Your task to perform on an android device: install app "The Home Depot" Image 0: 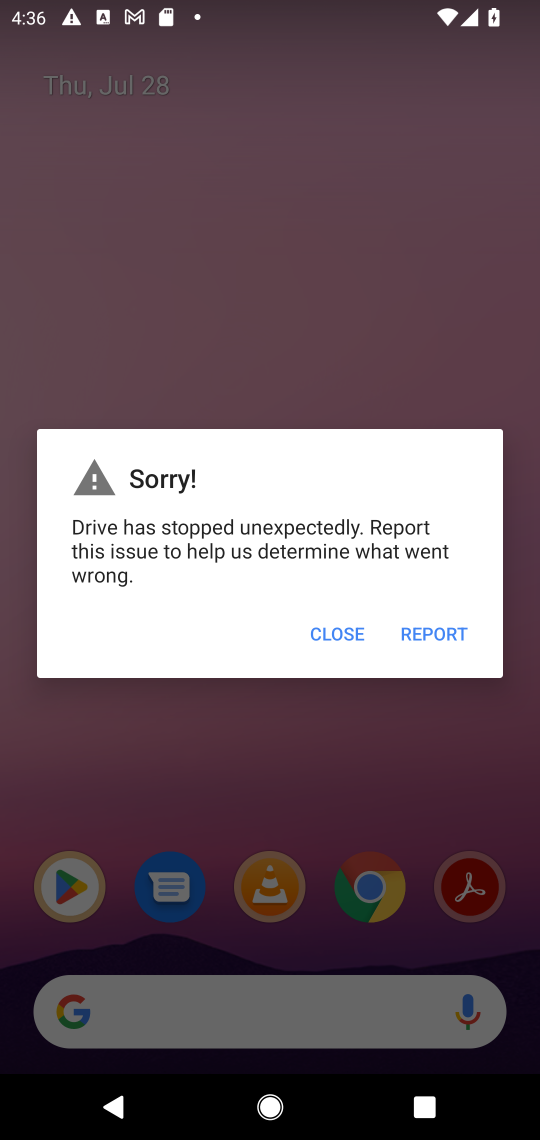
Step 0: click (337, 635)
Your task to perform on an android device: install app "The Home Depot" Image 1: 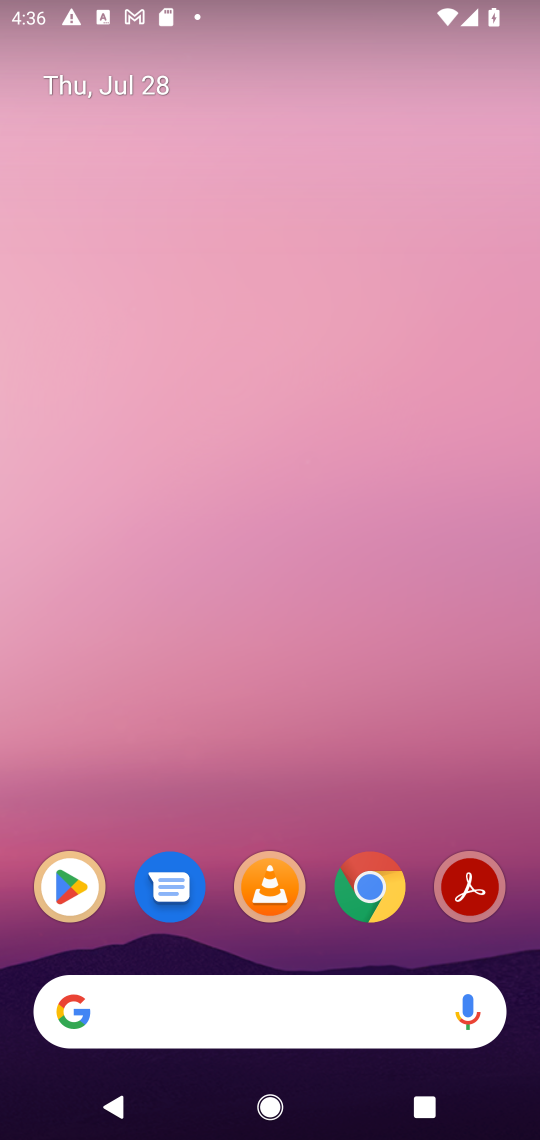
Step 1: click (62, 898)
Your task to perform on an android device: install app "The Home Depot" Image 2: 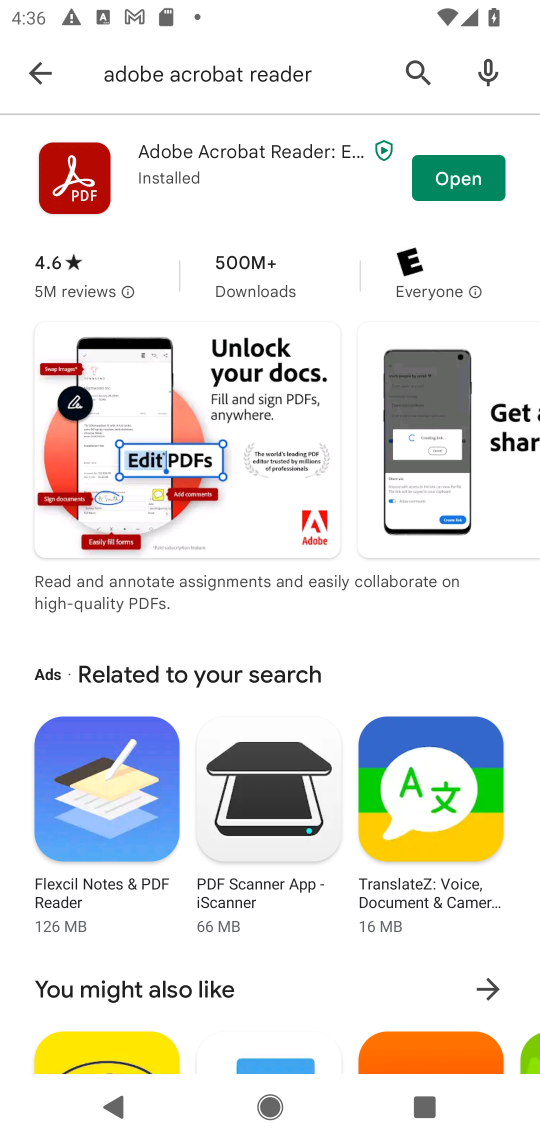
Step 2: click (293, 91)
Your task to perform on an android device: install app "The Home Depot" Image 3: 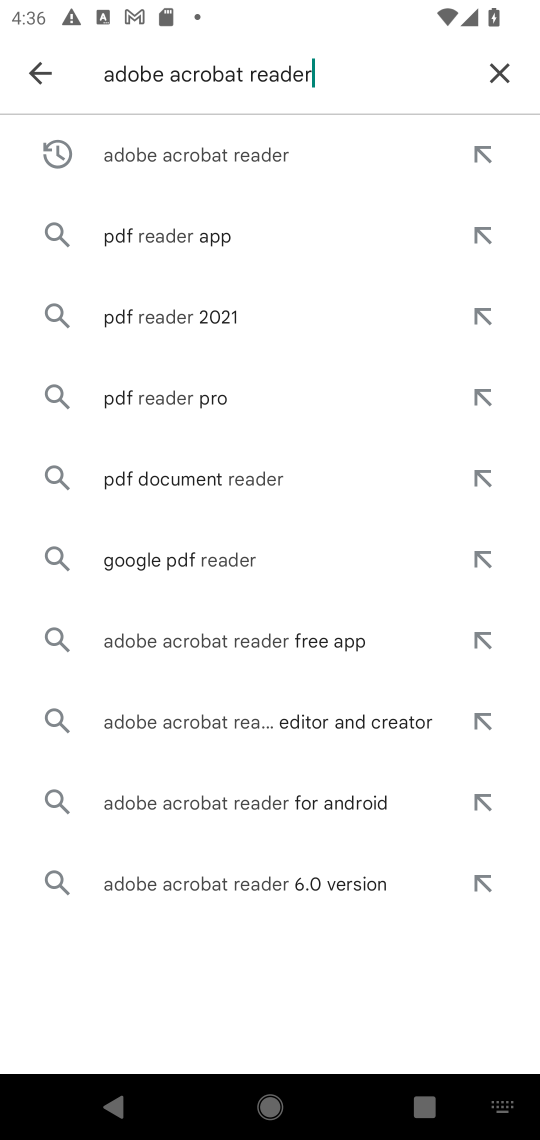
Step 3: click (498, 72)
Your task to perform on an android device: install app "The Home Depot" Image 4: 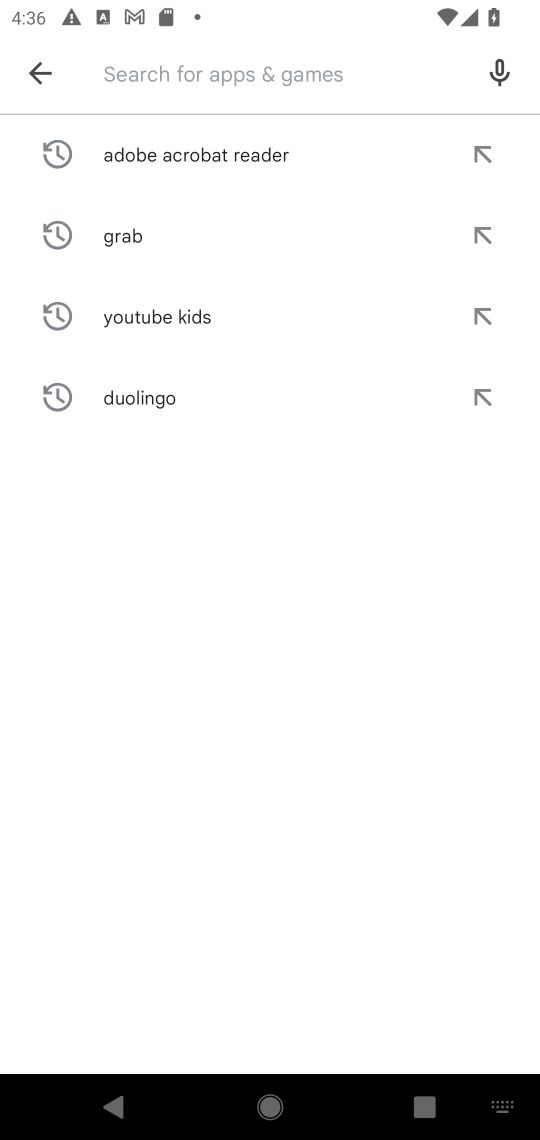
Step 4: type "The Hoem Depot"
Your task to perform on an android device: install app "The Home Depot" Image 5: 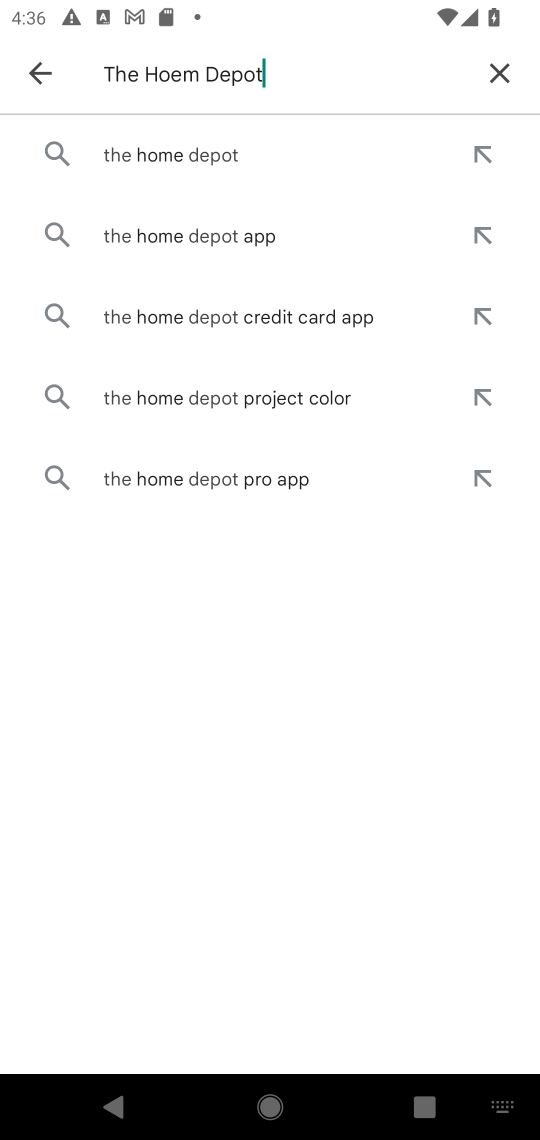
Step 5: click (224, 167)
Your task to perform on an android device: install app "The Home Depot" Image 6: 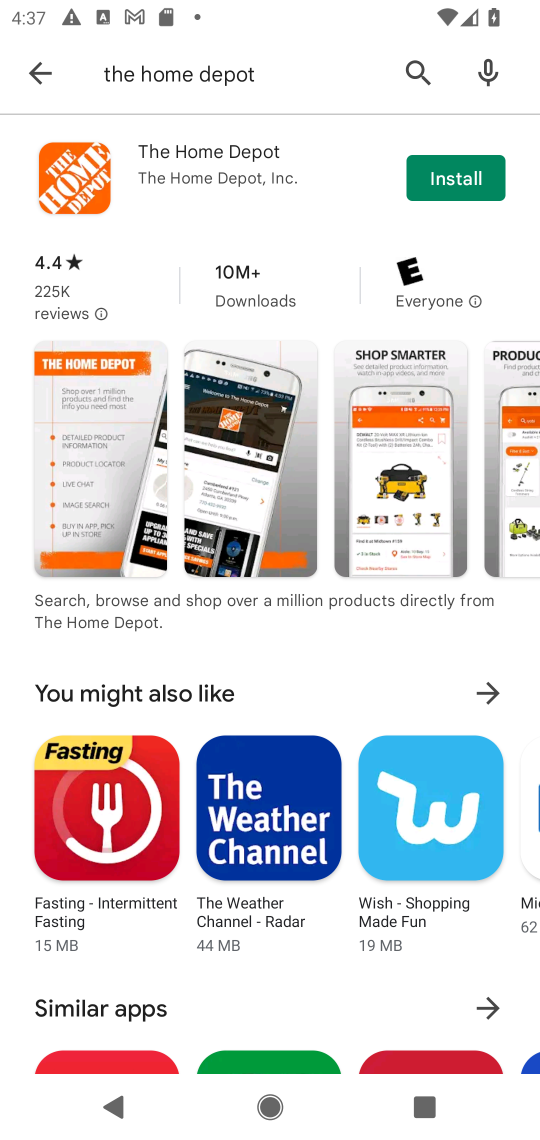
Step 6: click (461, 186)
Your task to perform on an android device: install app "The Home Depot" Image 7: 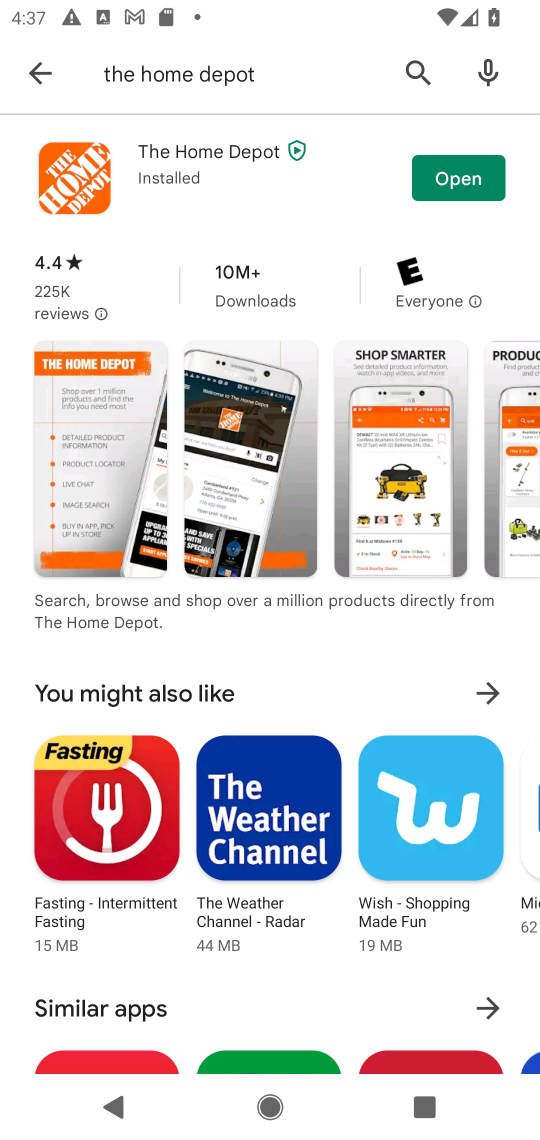
Step 7: click (470, 180)
Your task to perform on an android device: install app "The Home Depot" Image 8: 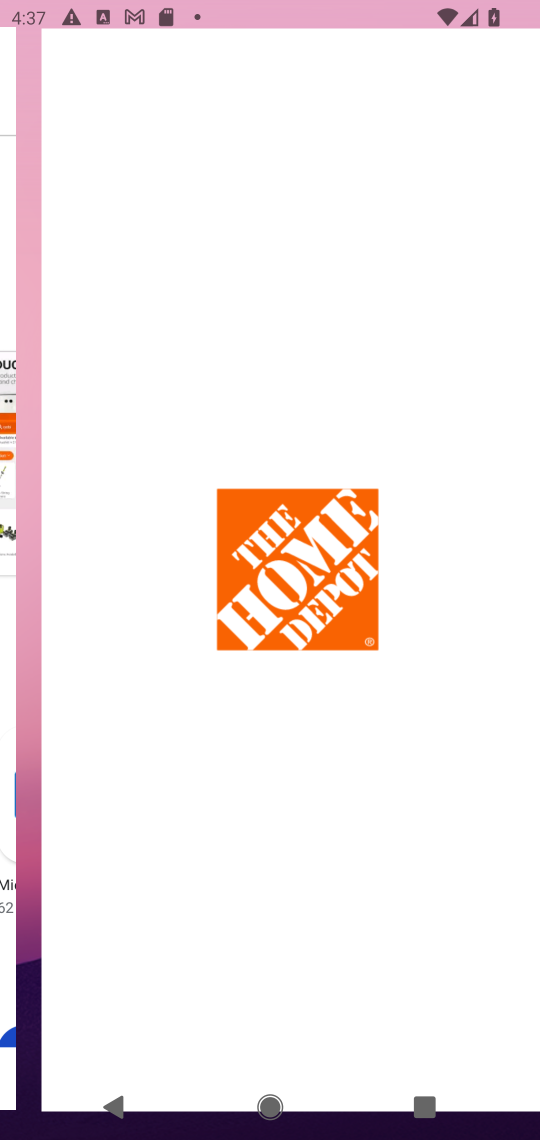
Step 8: task complete